Your task to perform on an android device: all mails in gmail Image 0: 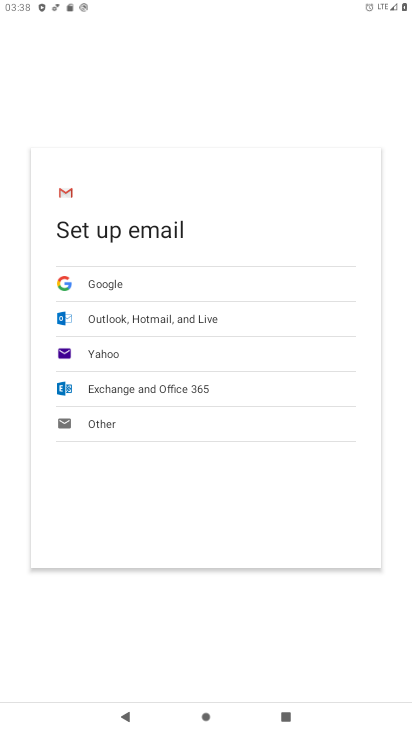
Step 0: press home button
Your task to perform on an android device: all mails in gmail Image 1: 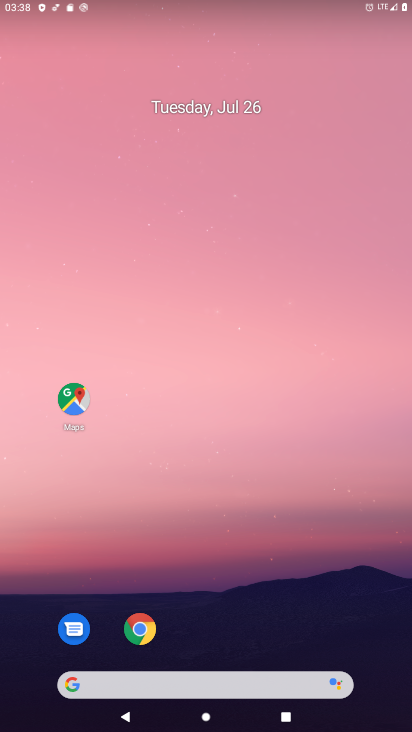
Step 1: drag from (217, 638) to (236, 6)
Your task to perform on an android device: all mails in gmail Image 2: 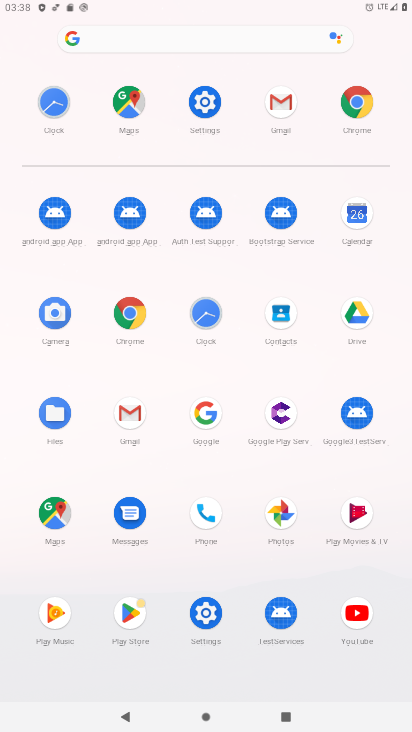
Step 2: click (122, 409)
Your task to perform on an android device: all mails in gmail Image 3: 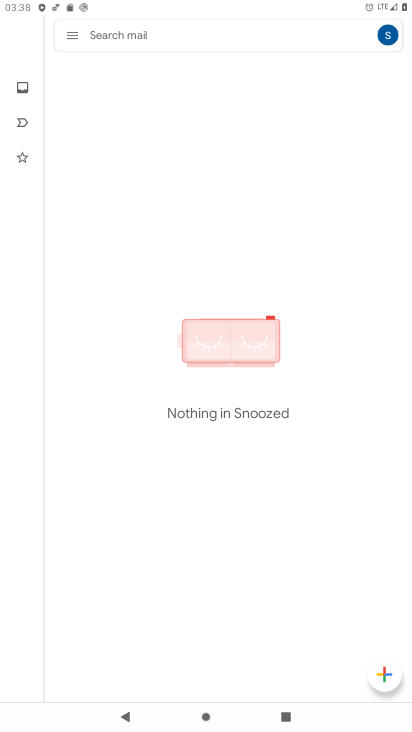
Step 3: click (79, 35)
Your task to perform on an android device: all mails in gmail Image 4: 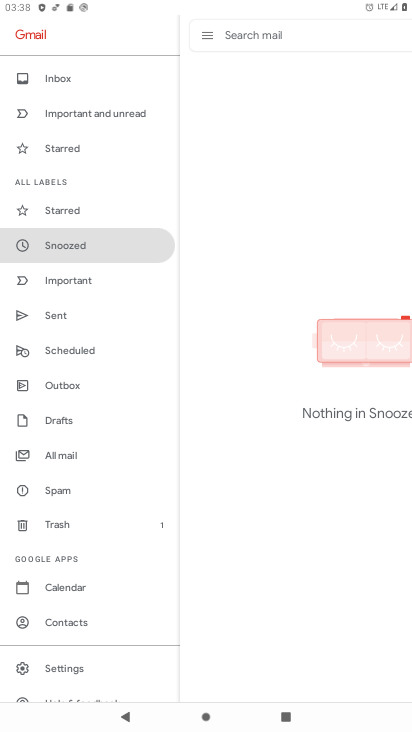
Step 4: drag from (101, 548) to (119, 373)
Your task to perform on an android device: all mails in gmail Image 5: 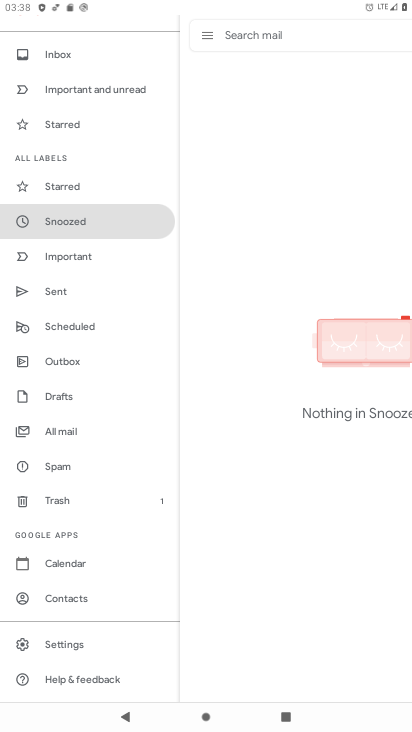
Step 5: click (64, 429)
Your task to perform on an android device: all mails in gmail Image 6: 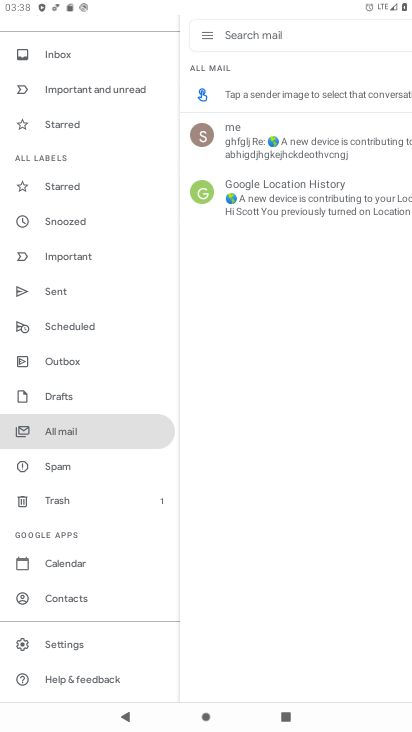
Step 6: task complete